Your task to perform on an android device: Open Wikipedia Image 0: 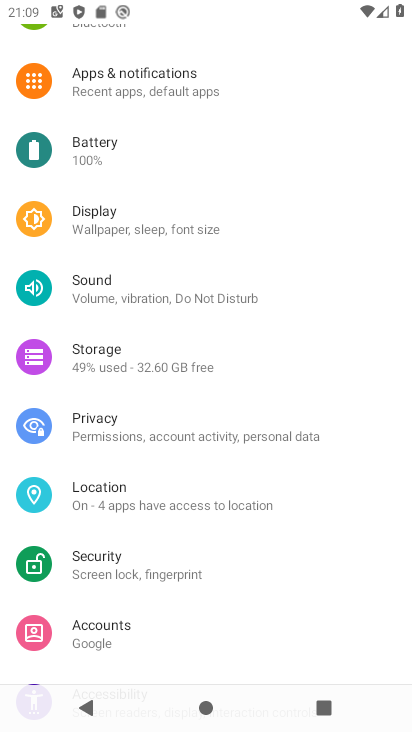
Step 0: press home button
Your task to perform on an android device: Open Wikipedia Image 1: 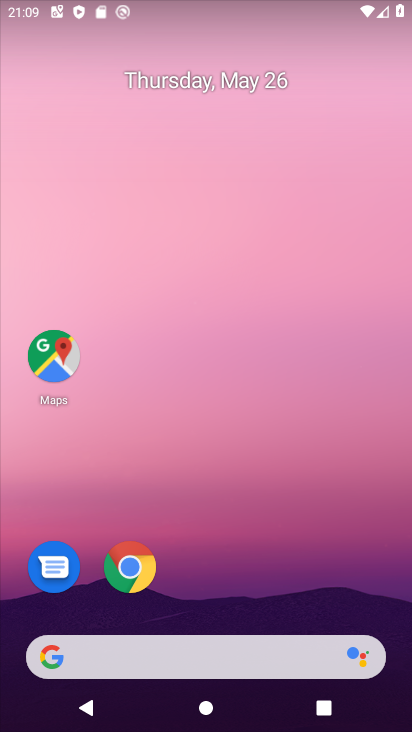
Step 1: click (130, 571)
Your task to perform on an android device: Open Wikipedia Image 2: 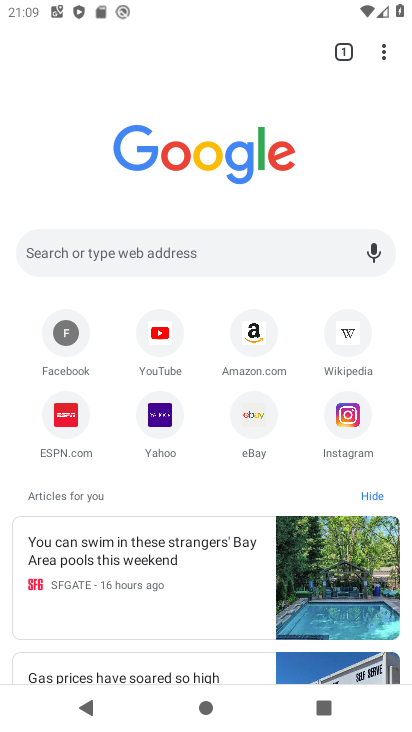
Step 2: click (356, 333)
Your task to perform on an android device: Open Wikipedia Image 3: 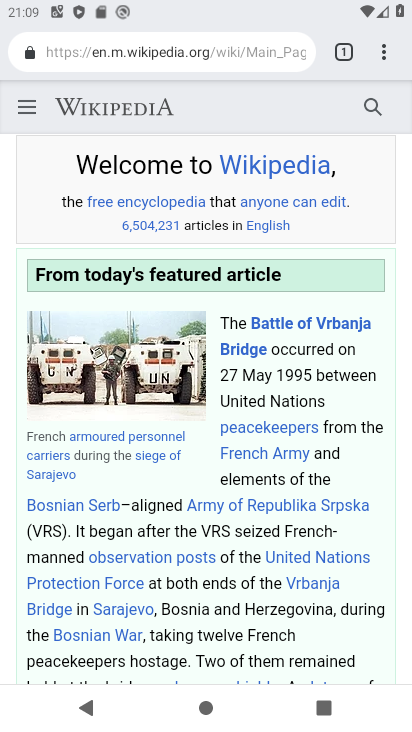
Step 3: task complete